Your task to perform on an android device: turn off location history Image 0: 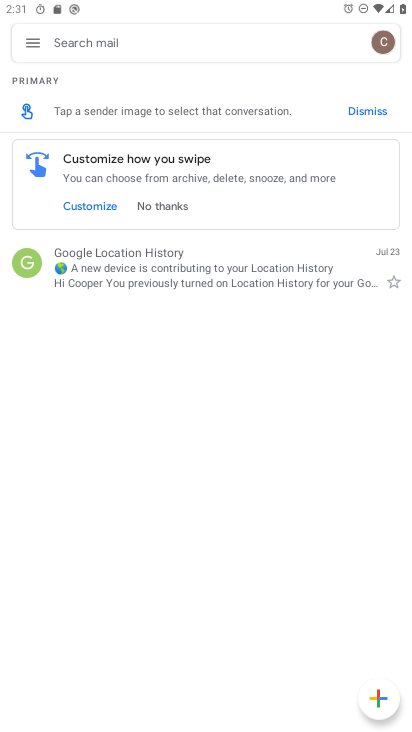
Step 0: drag from (222, 520) to (263, 270)
Your task to perform on an android device: turn off location history Image 1: 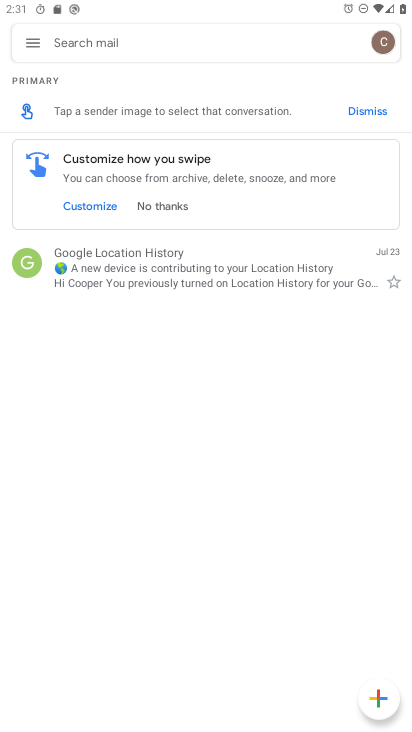
Step 1: press home button
Your task to perform on an android device: turn off location history Image 2: 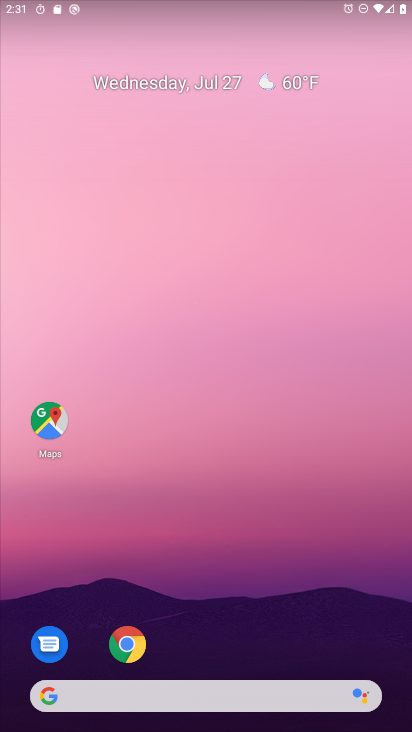
Step 2: drag from (200, 653) to (285, 178)
Your task to perform on an android device: turn off location history Image 3: 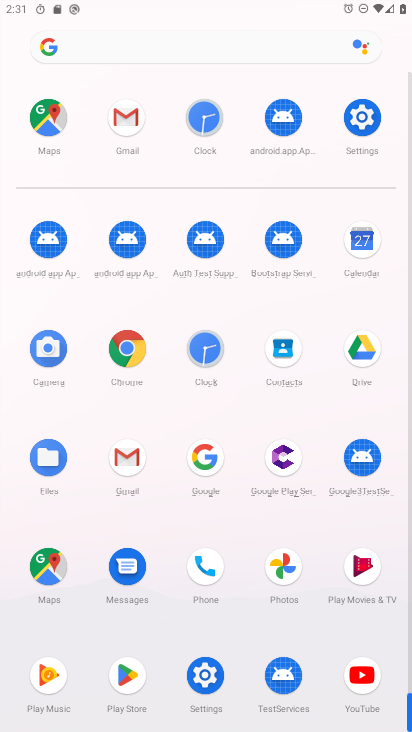
Step 3: click (211, 680)
Your task to perform on an android device: turn off location history Image 4: 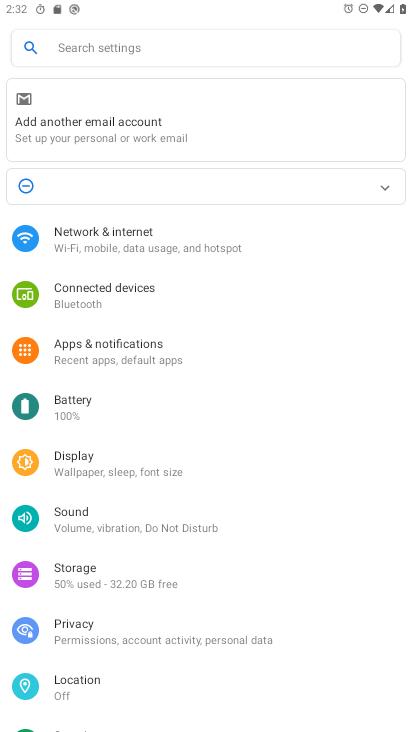
Step 4: drag from (180, 664) to (248, 337)
Your task to perform on an android device: turn off location history Image 5: 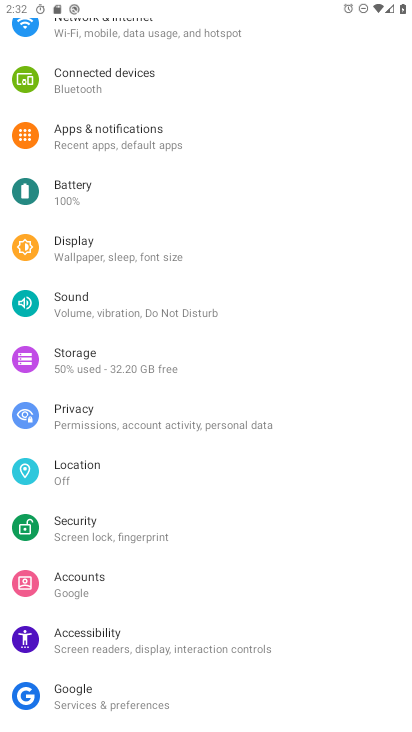
Step 5: click (99, 461)
Your task to perform on an android device: turn off location history Image 6: 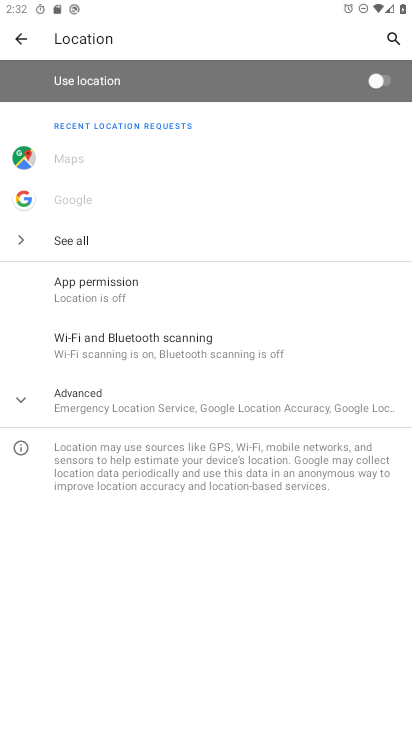
Step 6: drag from (188, 616) to (248, 317)
Your task to perform on an android device: turn off location history Image 7: 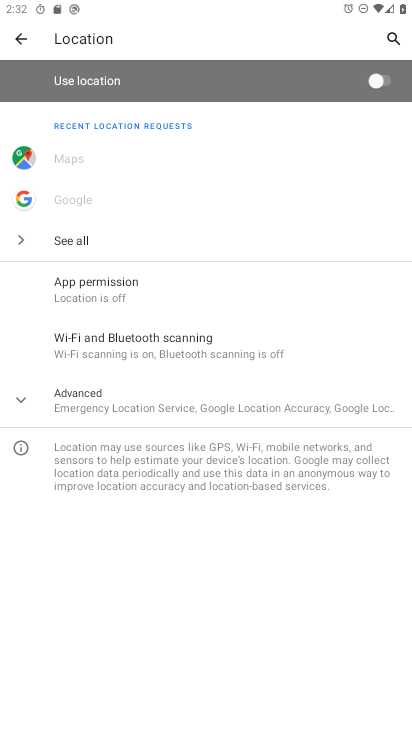
Step 7: click (94, 422)
Your task to perform on an android device: turn off location history Image 8: 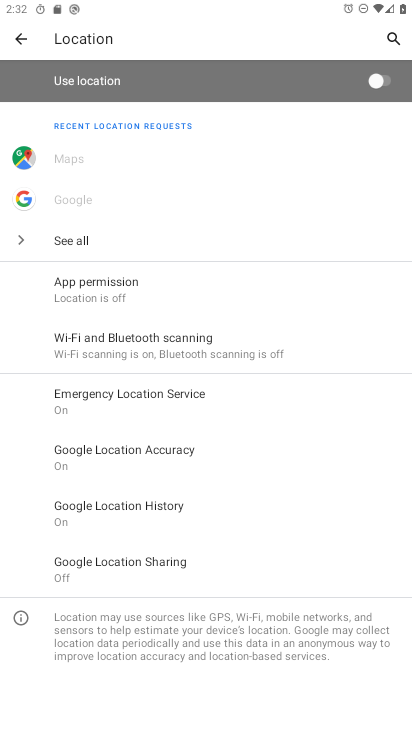
Step 8: click (159, 510)
Your task to perform on an android device: turn off location history Image 9: 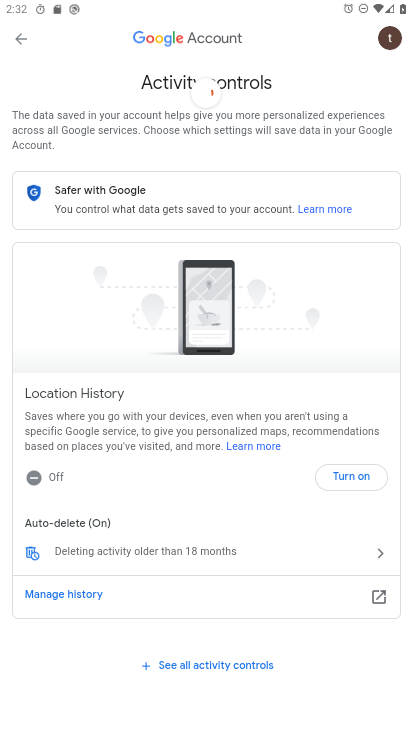
Step 9: drag from (159, 512) to (199, 470)
Your task to perform on an android device: turn off location history Image 10: 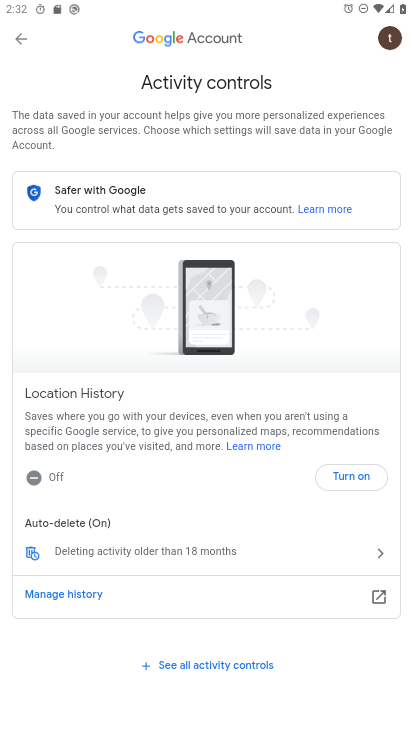
Step 10: drag from (185, 539) to (233, 318)
Your task to perform on an android device: turn off location history Image 11: 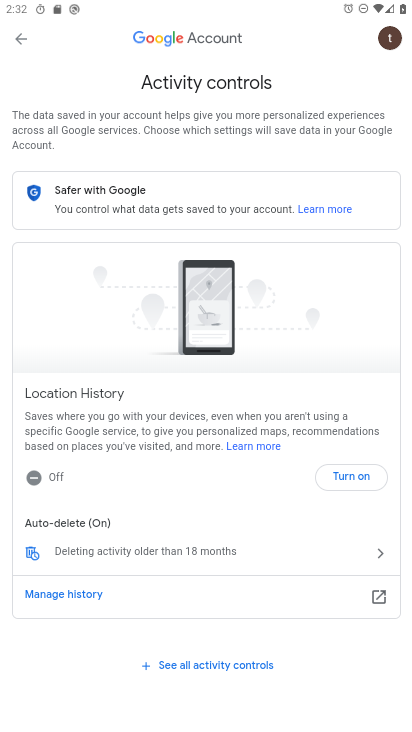
Step 11: drag from (318, 222) to (232, 547)
Your task to perform on an android device: turn off location history Image 12: 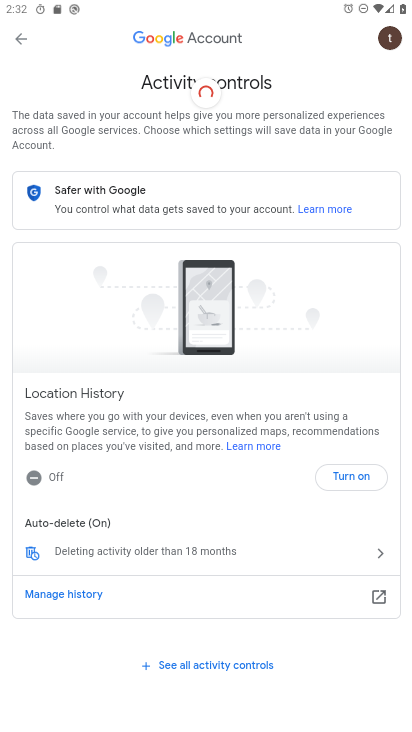
Step 12: drag from (186, 563) to (357, 708)
Your task to perform on an android device: turn off location history Image 13: 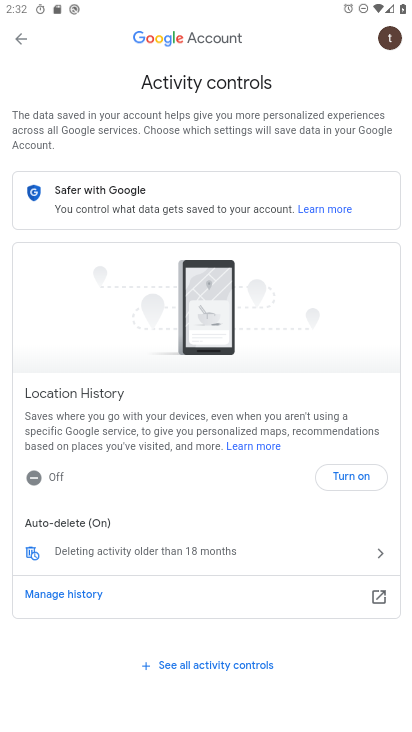
Step 13: press home button
Your task to perform on an android device: turn off location history Image 14: 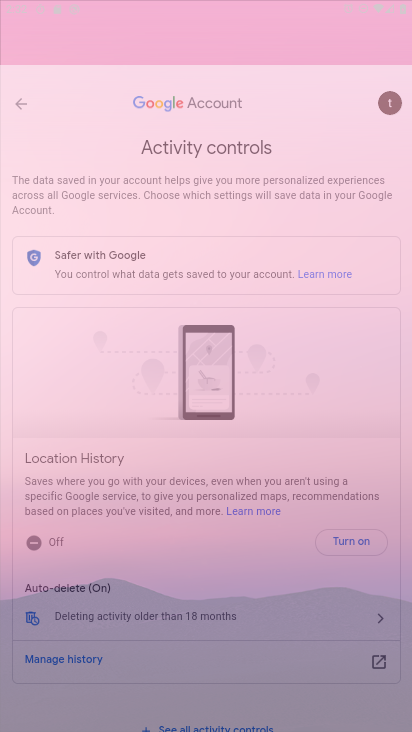
Step 14: drag from (173, 667) to (313, 249)
Your task to perform on an android device: turn off location history Image 15: 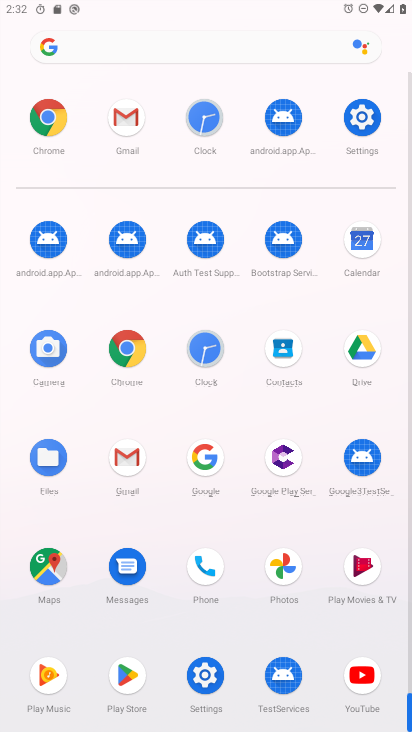
Step 15: click (196, 688)
Your task to perform on an android device: turn off location history Image 16: 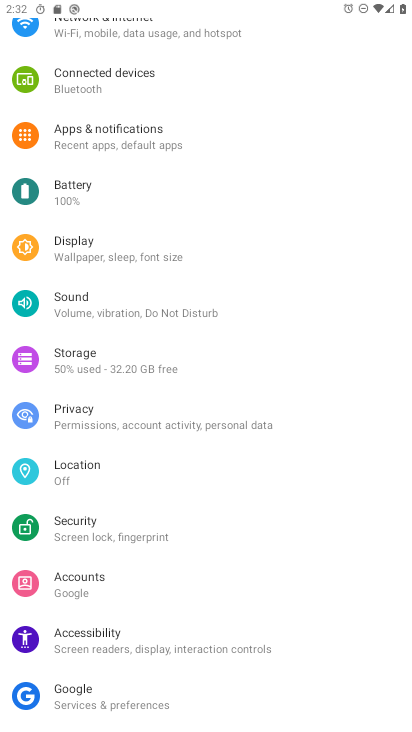
Step 16: click (85, 483)
Your task to perform on an android device: turn off location history Image 17: 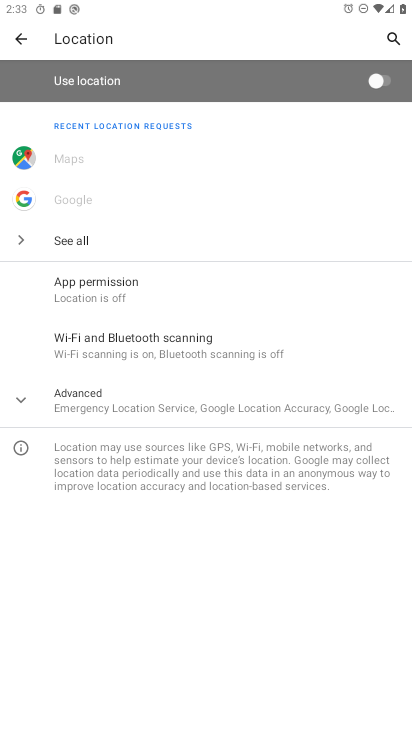
Step 17: click (110, 393)
Your task to perform on an android device: turn off location history Image 18: 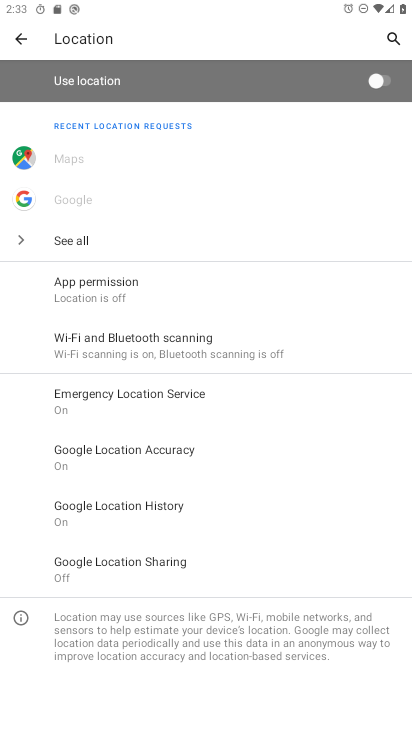
Step 18: click (162, 512)
Your task to perform on an android device: turn off location history Image 19: 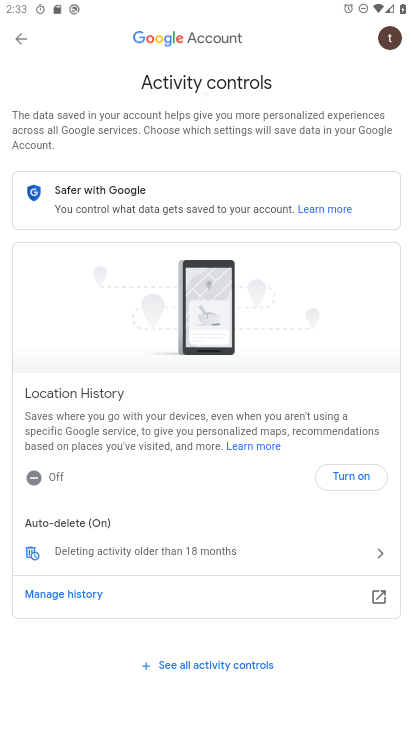
Step 19: task complete